Your task to perform on an android device: change notification settings in the gmail app Image 0: 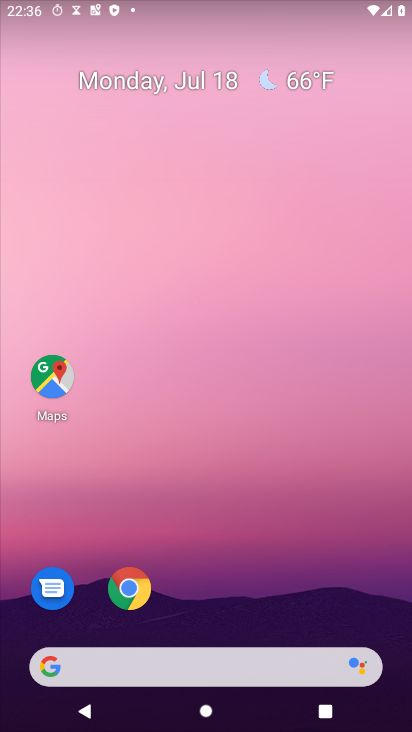
Step 0: drag from (179, 672) to (347, 74)
Your task to perform on an android device: change notification settings in the gmail app Image 1: 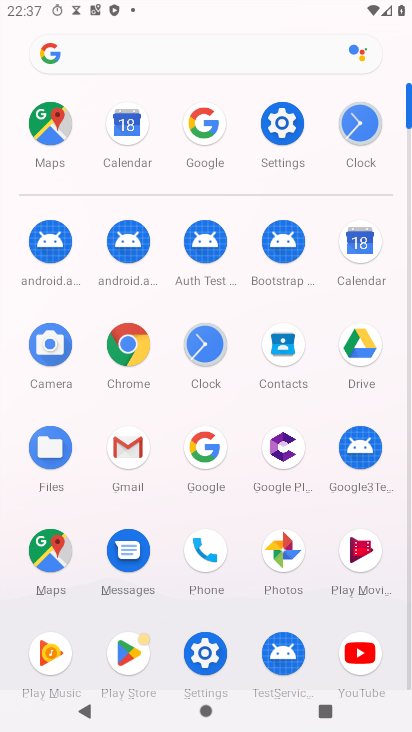
Step 1: click (125, 451)
Your task to perform on an android device: change notification settings in the gmail app Image 2: 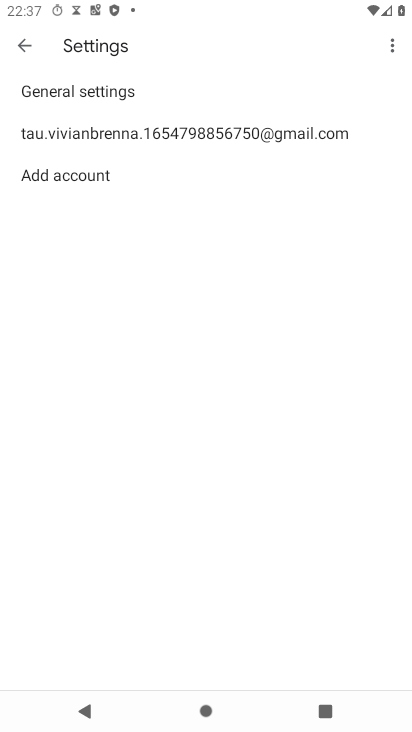
Step 2: click (184, 130)
Your task to perform on an android device: change notification settings in the gmail app Image 3: 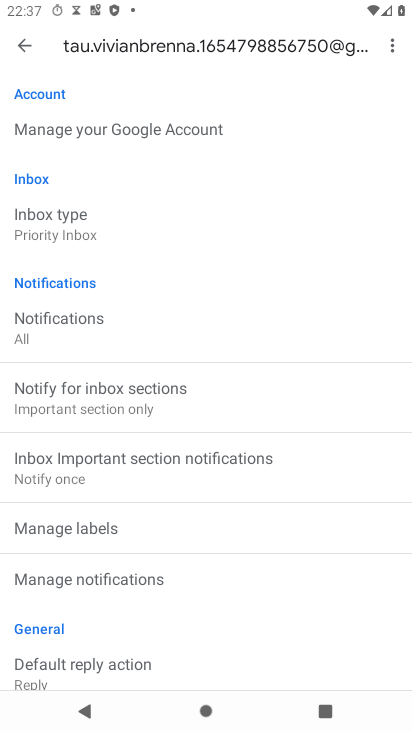
Step 3: click (65, 327)
Your task to perform on an android device: change notification settings in the gmail app Image 4: 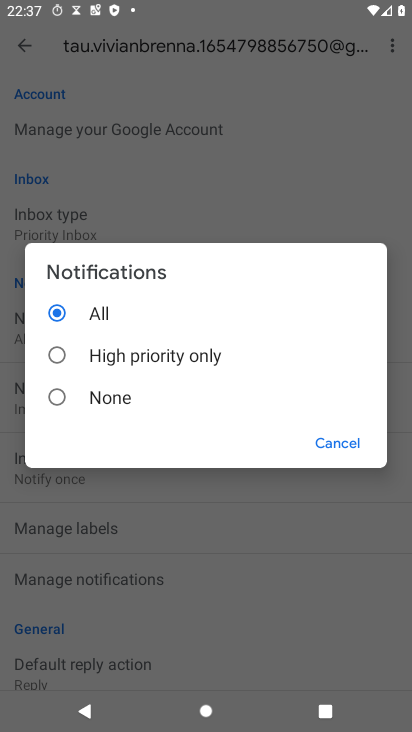
Step 4: click (58, 396)
Your task to perform on an android device: change notification settings in the gmail app Image 5: 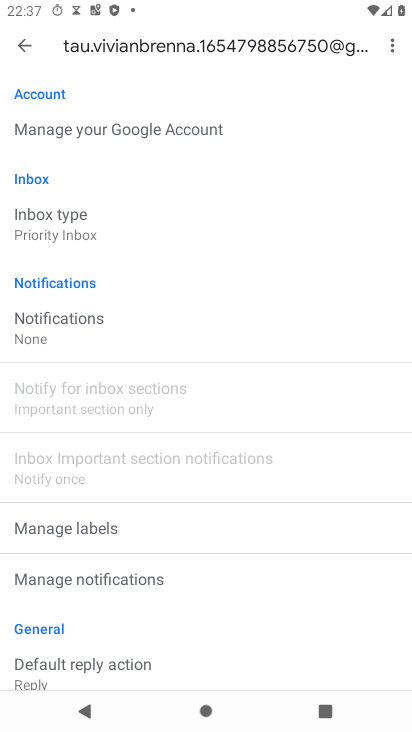
Step 5: task complete